Your task to perform on an android device: open chrome and create a bookmark for the current page Image 0: 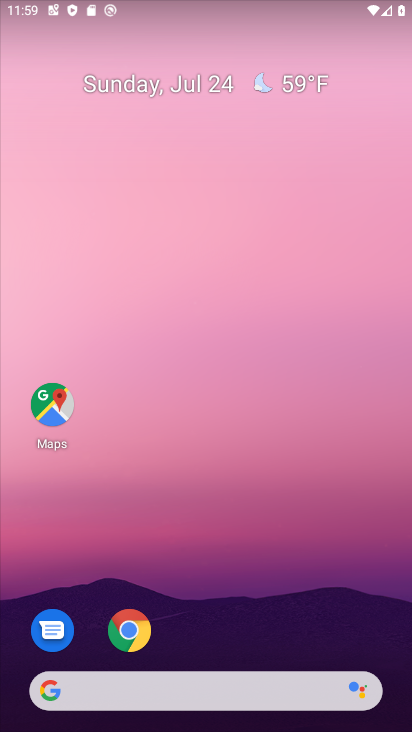
Step 0: drag from (265, 683) to (263, 315)
Your task to perform on an android device: open chrome and create a bookmark for the current page Image 1: 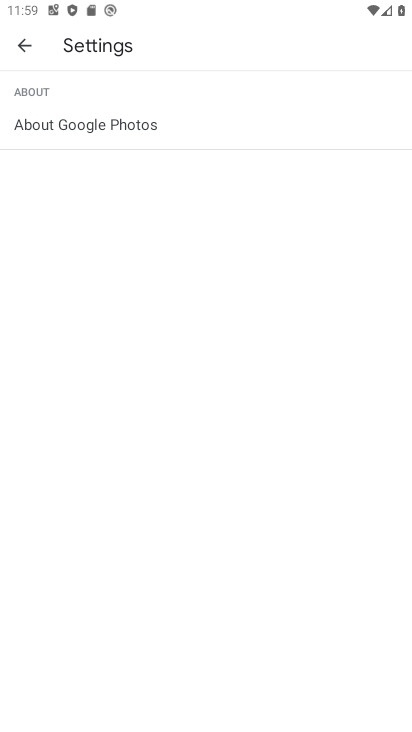
Step 1: click (19, 50)
Your task to perform on an android device: open chrome and create a bookmark for the current page Image 2: 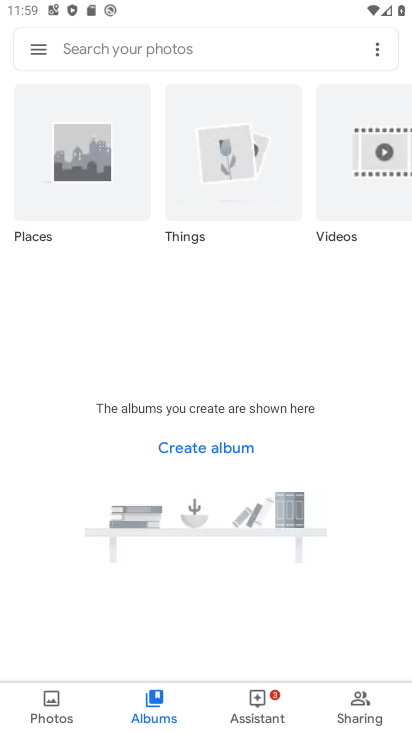
Step 2: press home button
Your task to perform on an android device: open chrome and create a bookmark for the current page Image 3: 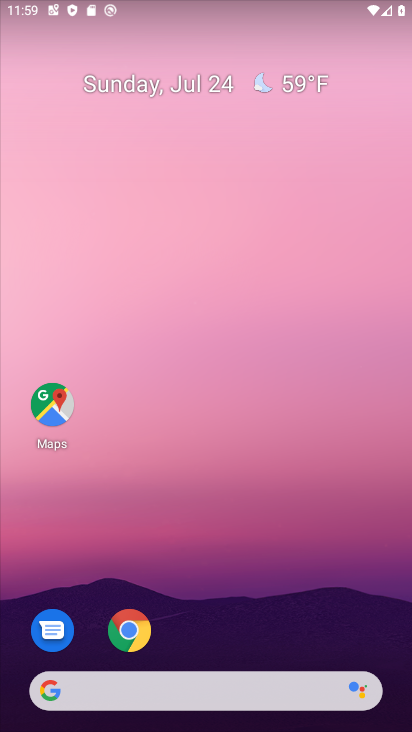
Step 3: click (134, 624)
Your task to perform on an android device: open chrome and create a bookmark for the current page Image 4: 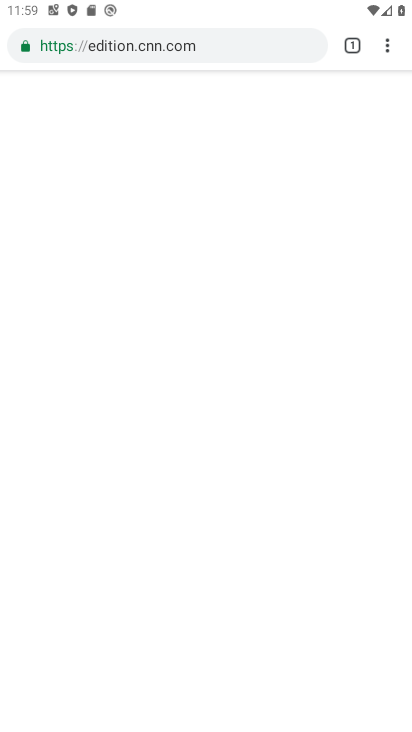
Step 4: click (386, 40)
Your task to perform on an android device: open chrome and create a bookmark for the current page Image 5: 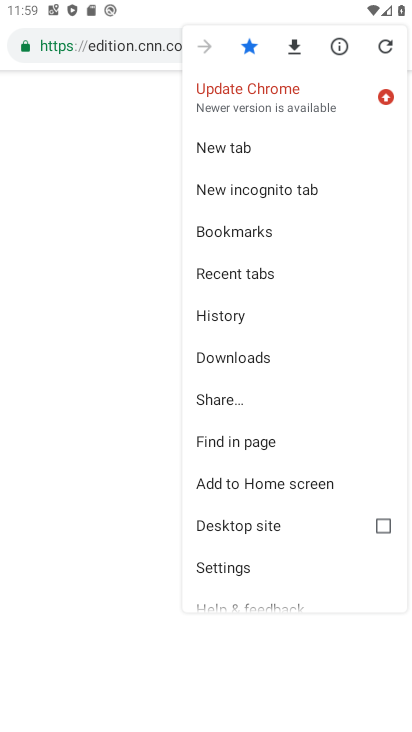
Step 5: click (256, 236)
Your task to perform on an android device: open chrome and create a bookmark for the current page Image 6: 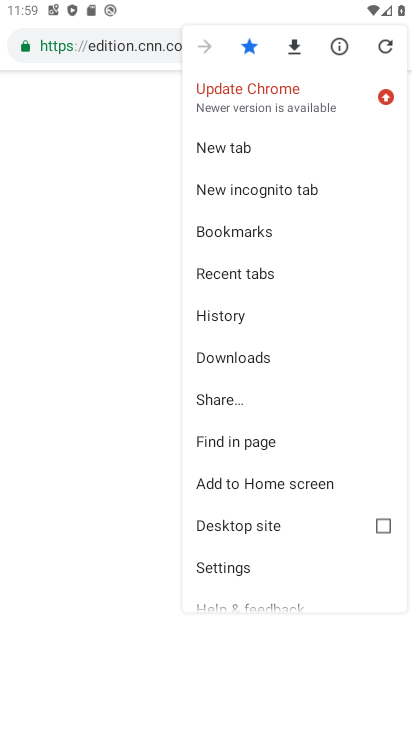
Step 6: click (241, 232)
Your task to perform on an android device: open chrome and create a bookmark for the current page Image 7: 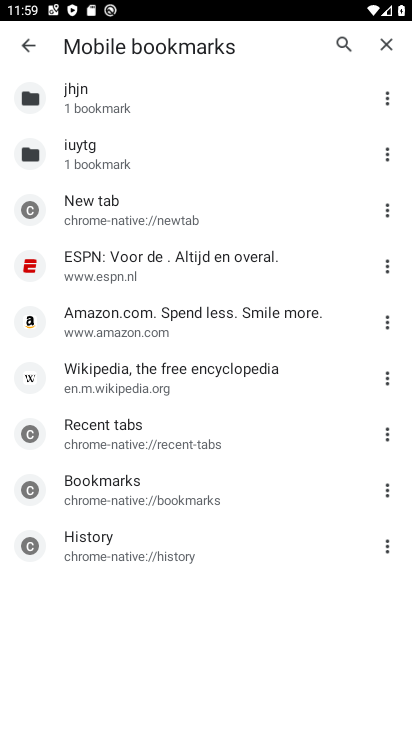
Step 7: task complete